Your task to perform on an android device: toggle show notifications on the lock screen Image 0: 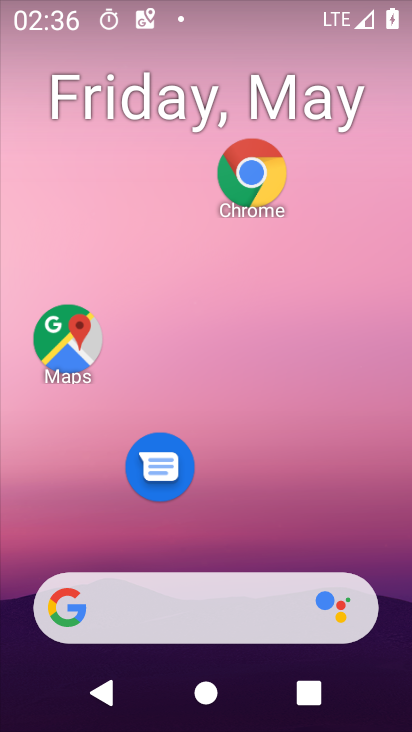
Step 0: drag from (297, 632) to (253, 129)
Your task to perform on an android device: toggle show notifications on the lock screen Image 1: 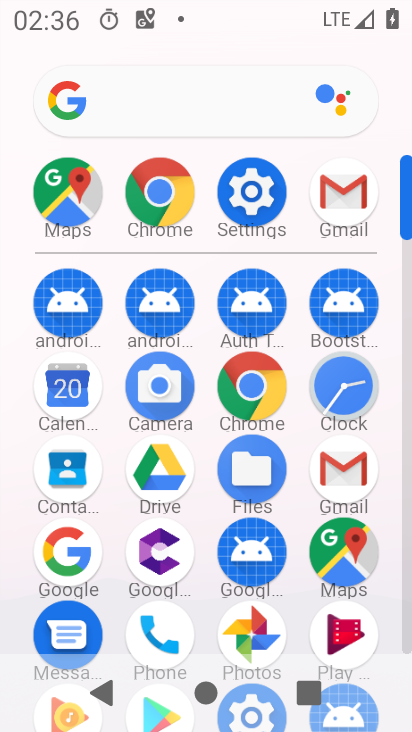
Step 1: click (257, 200)
Your task to perform on an android device: toggle show notifications on the lock screen Image 2: 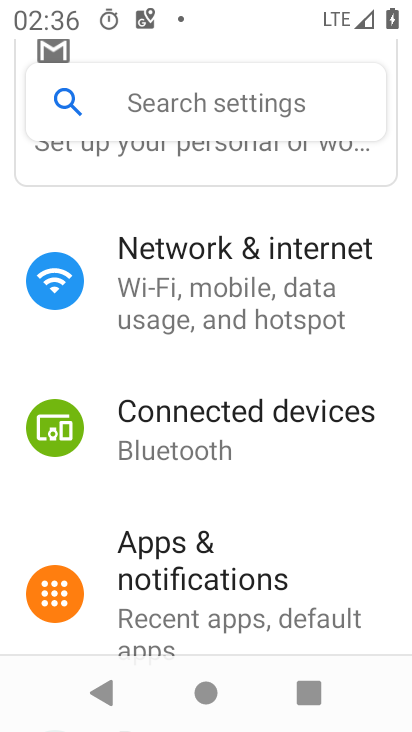
Step 2: click (200, 119)
Your task to perform on an android device: toggle show notifications on the lock screen Image 3: 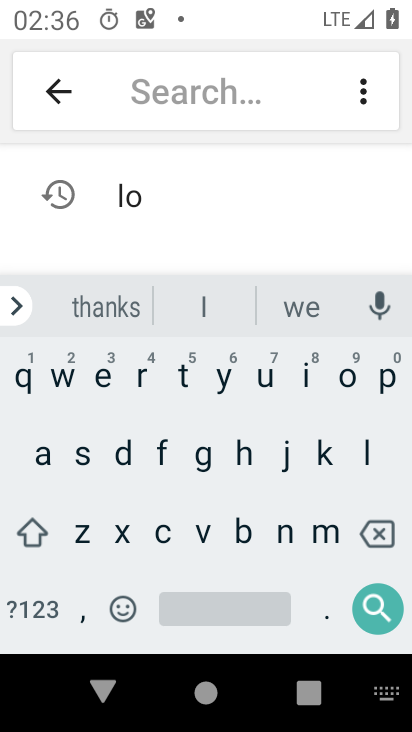
Step 3: click (289, 526)
Your task to perform on an android device: toggle show notifications on the lock screen Image 4: 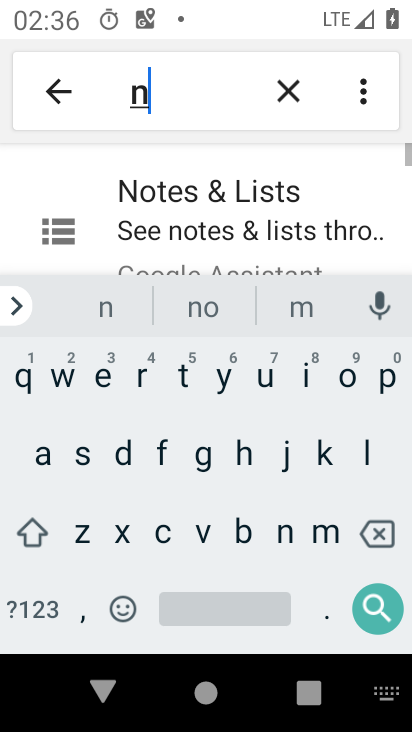
Step 4: click (347, 375)
Your task to perform on an android device: toggle show notifications on the lock screen Image 5: 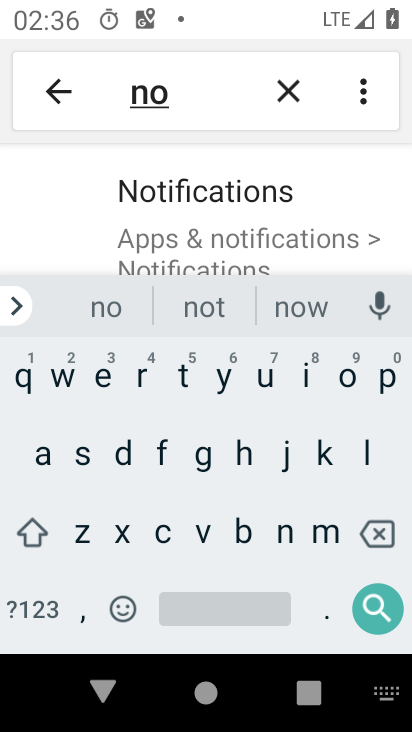
Step 5: click (213, 244)
Your task to perform on an android device: toggle show notifications on the lock screen Image 6: 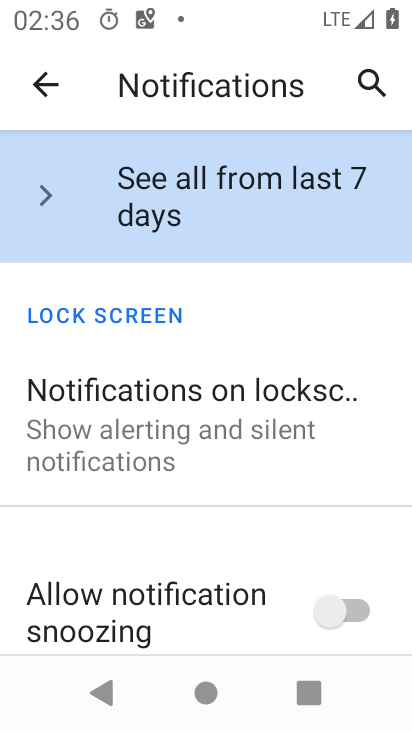
Step 6: click (198, 397)
Your task to perform on an android device: toggle show notifications on the lock screen Image 7: 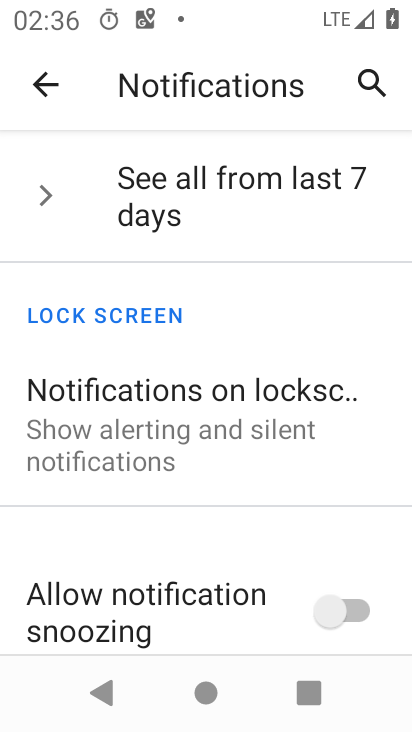
Step 7: click (263, 424)
Your task to perform on an android device: toggle show notifications on the lock screen Image 8: 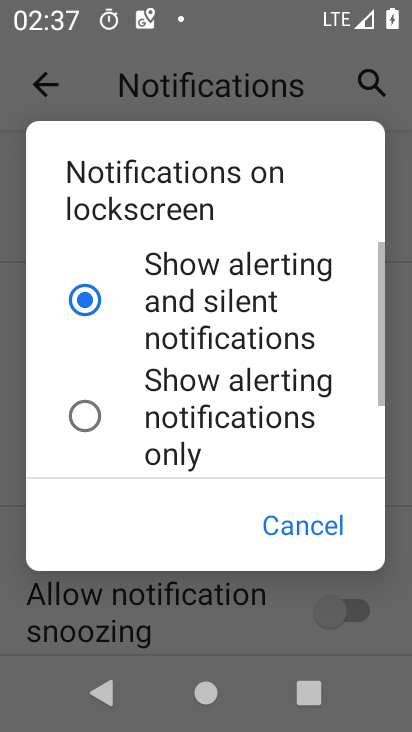
Step 8: task complete